Your task to perform on an android device: turn on the 24-hour format for clock Image 0: 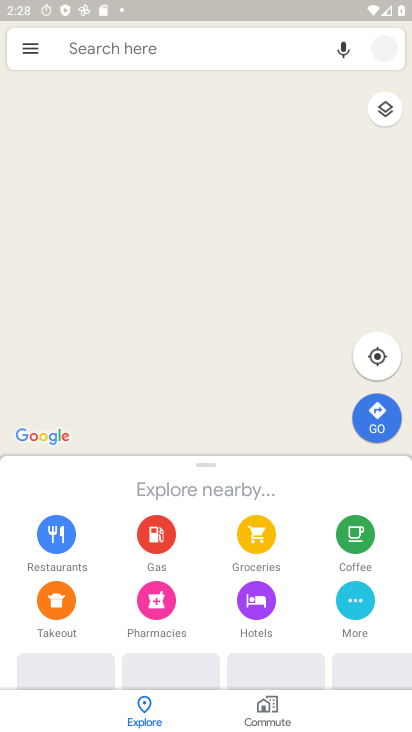
Step 0: click (333, 210)
Your task to perform on an android device: turn on the 24-hour format for clock Image 1: 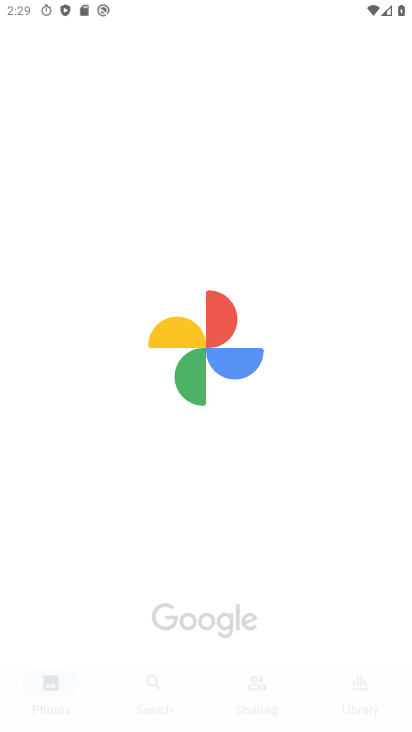
Step 1: drag from (363, 354) to (351, 214)
Your task to perform on an android device: turn on the 24-hour format for clock Image 2: 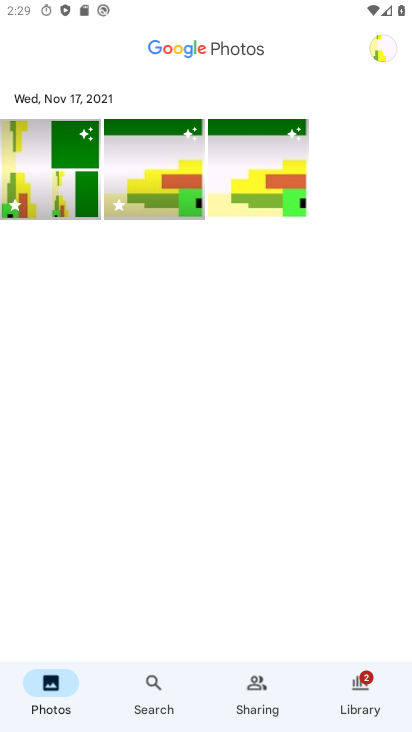
Step 2: press home button
Your task to perform on an android device: turn on the 24-hour format for clock Image 3: 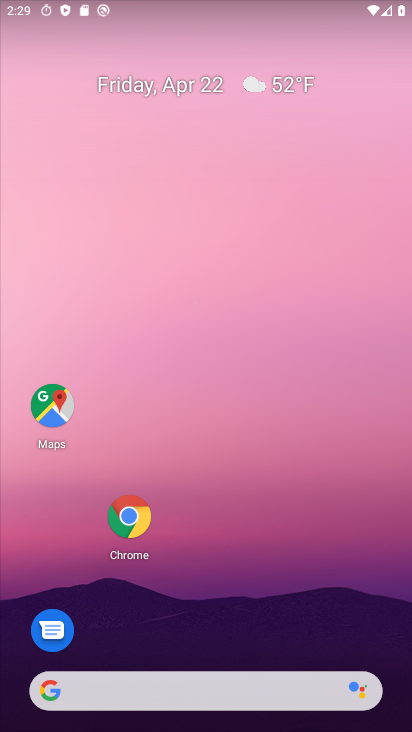
Step 3: drag from (379, 352) to (378, 155)
Your task to perform on an android device: turn on the 24-hour format for clock Image 4: 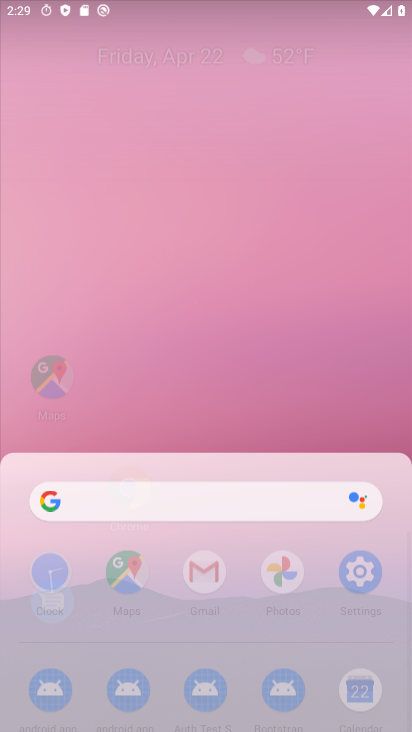
Step 4: click (352, 128)
Your task to perform on an android device: turn on the 24-hour format for clock Image 5: 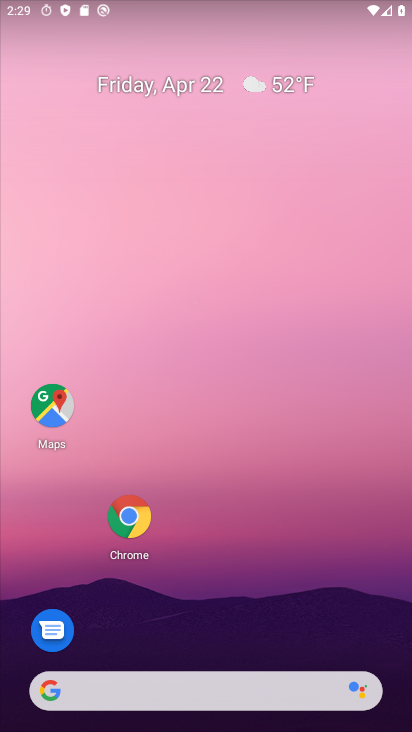
Step 5: drag from (385, 293) to (383, 168)
Your task to perform on an android device: turn on the 24-hour format for clock Image 6: 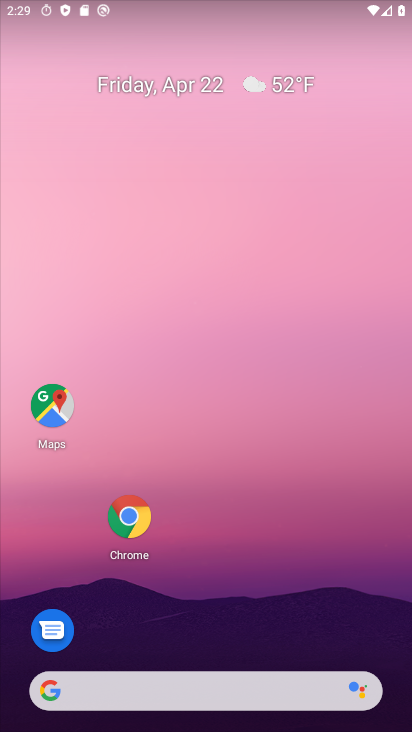
Step 6: drag from (365, 347) to (356, 129)
Your task to perform on an android device: turn on the 24-hour format for clock Image 7: 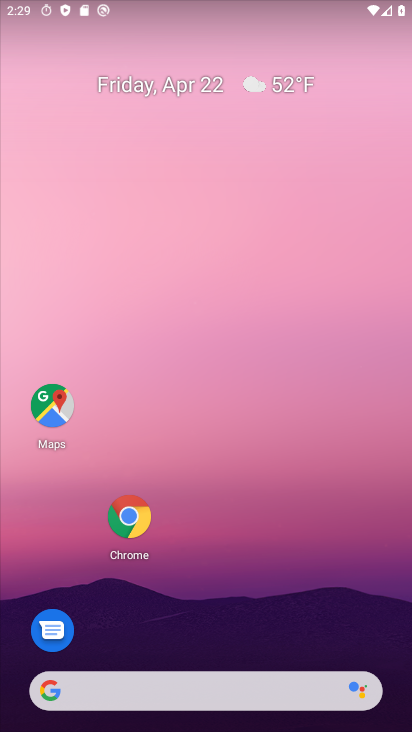
Step 7: drag from (373, 187) to (369, 142)
Your task to perform on an android device: turn on the 24-hour format for clock Image 8: 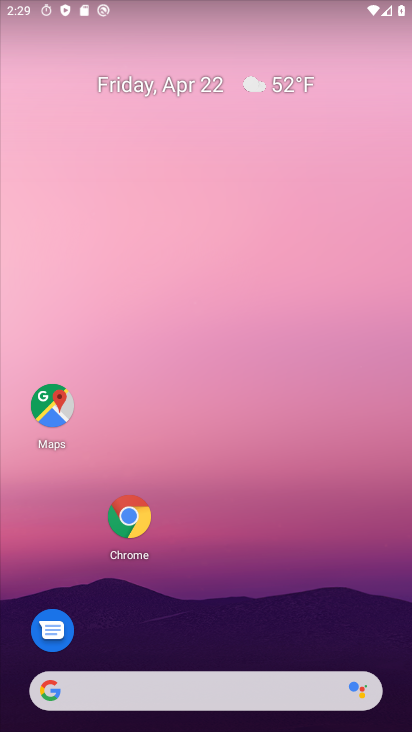
Step 8: drag from (401, 554) to (384, 217)
Your task to perform on an android device: turn on the 24-hour format for clock Image 9: 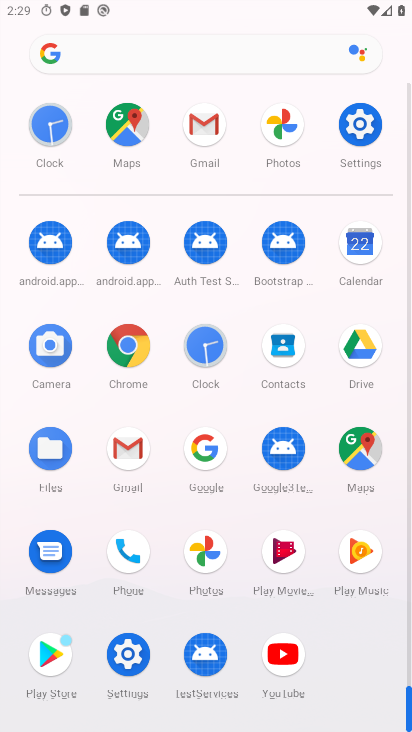
Step 9: click (54, 116)
Your task to perform on an android device: turn on the 24-hour format for clock Image 10: 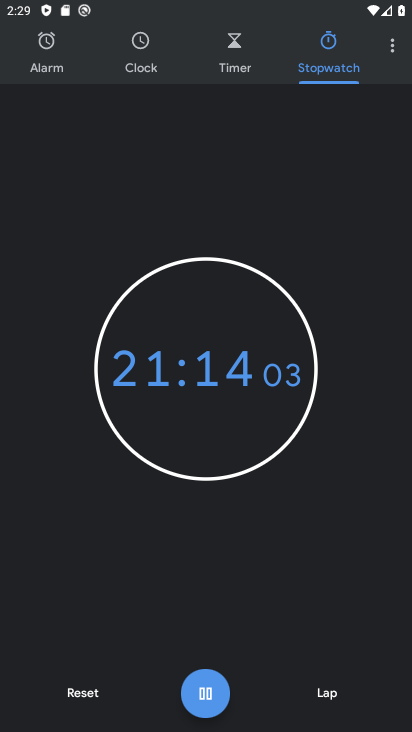
Step 10: click (393, 47)
Your task to perform on an android device: turn on the 24-hour format for clock Image 11: 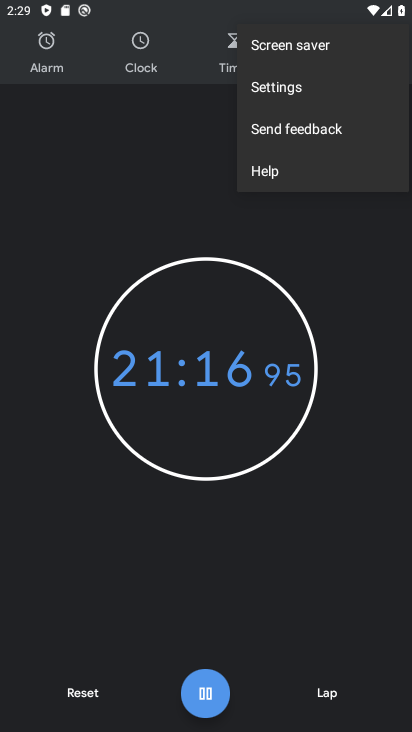
Step 11: click (265, 79)
Your task to perform on an android device: turn on the 24-hour format for clock Image 12: 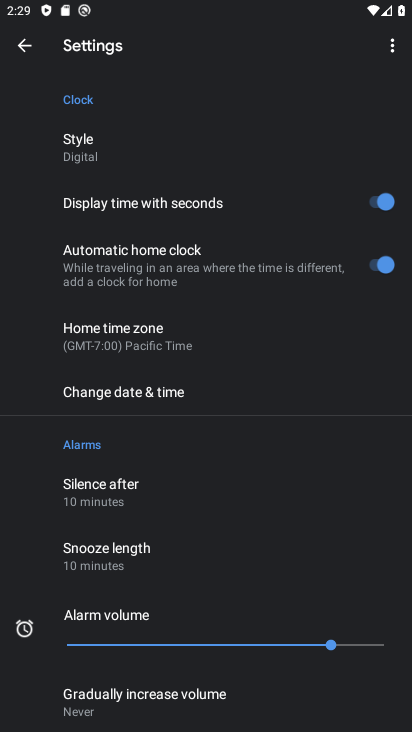
Step 12: drag from (310, 612) to (331, 242)
Your task to perform on an android device: turn on the 24-hour format for clock Image 13: 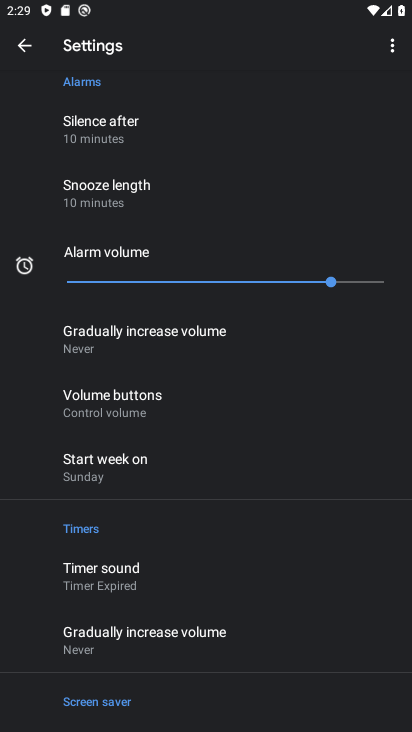
Step 13: drag from (262, 617) to (278, 218)
Your task to perform on an android device: turn on the 24-hour format for clock Image 14: 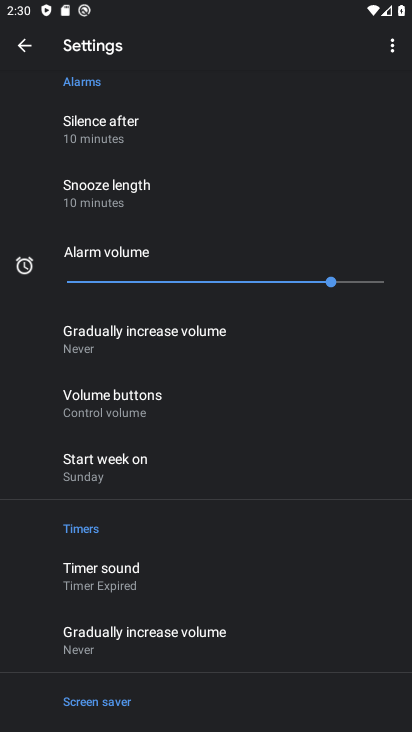
Step 14: drag from (241, 674) to (269, 265)
Your task to perform on an android device: turn on the 24-hour format for clock Image 15: 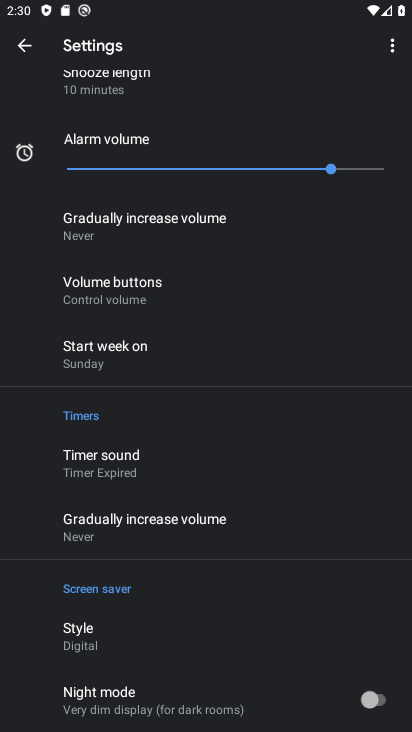
Step 15: drag from (207, 108) to (226, 388)
Your task to perform on an android device: turn on the 24-hour format for clock Image 16: 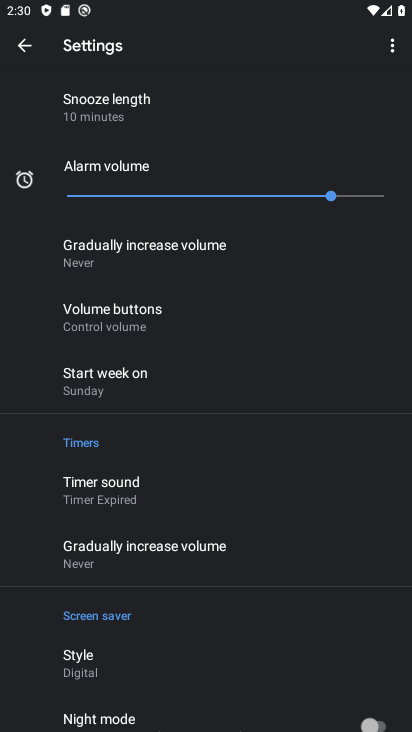
Step 16: drag from (232, 378) to (245, 437)
Your task to perform on an android device: turn on the 24-hour format for clock Image 17: 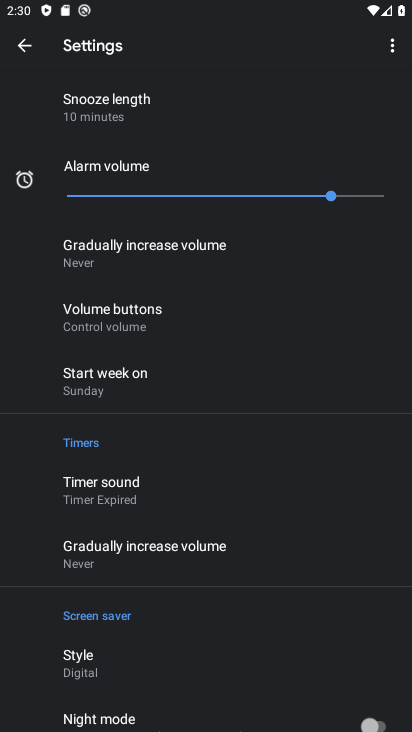
Step 17: drag from (270, 361) to (276, 411)
Your task to perform on an android device: turn on the 24-hour format for clock Image 18: 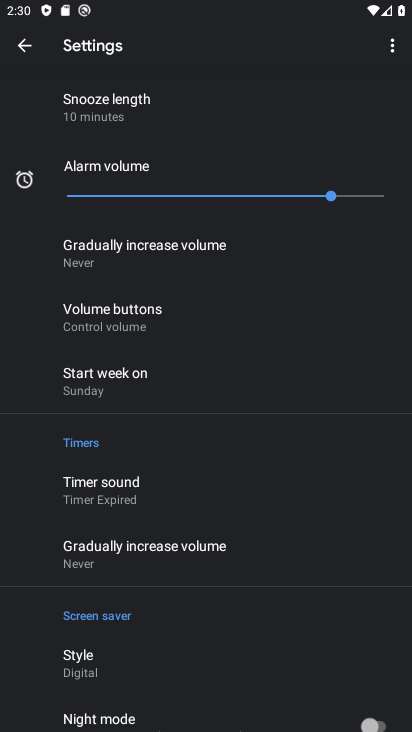
Step 18: drag from (244, 77) to (258, 379)
Your task to perform on an android device: turn on the 24-hour format for clock Image 19: 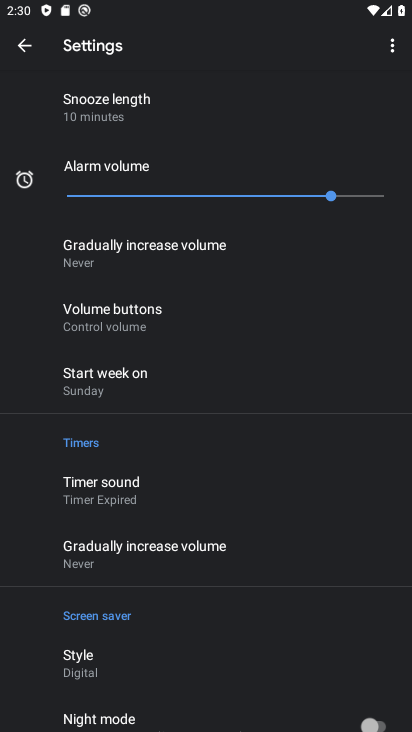
Step 19: click (17, 48)
Your task to perform on an android device: turn on the 24-hour format for clock Image 20: 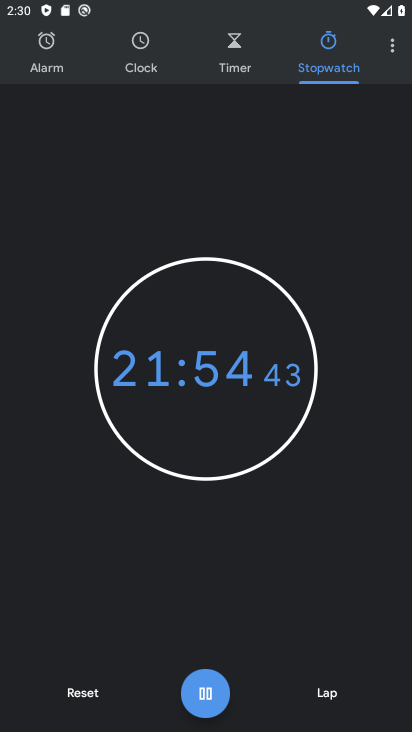
Step 20: click (389, 43)
Your task to perform on an android device: turn on the 24-hour format for clock Image 21: 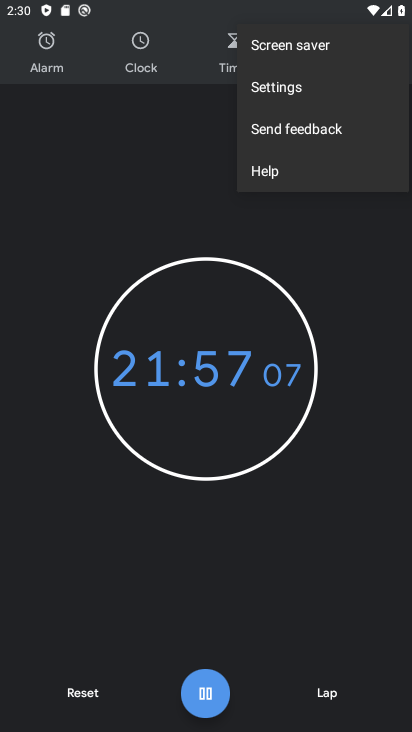
Step 21: click (270, 83)
Your task to perform on an android device: turn on the 24-hour format for clock Image 22: 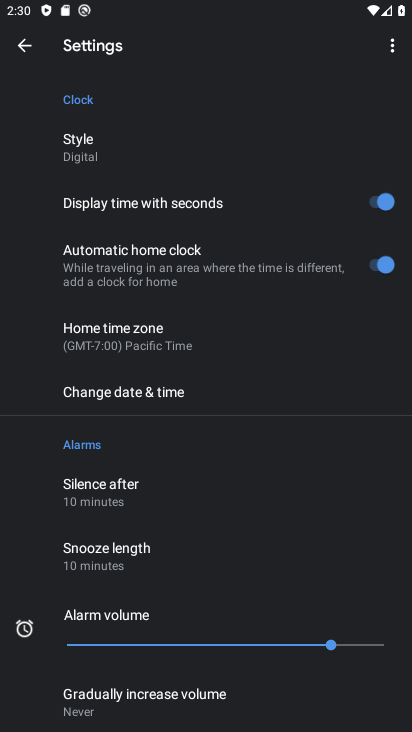
Step 22: click (117, 389)
Your task to perform on an android device: turn on the 24-hour format for clock Image 23: 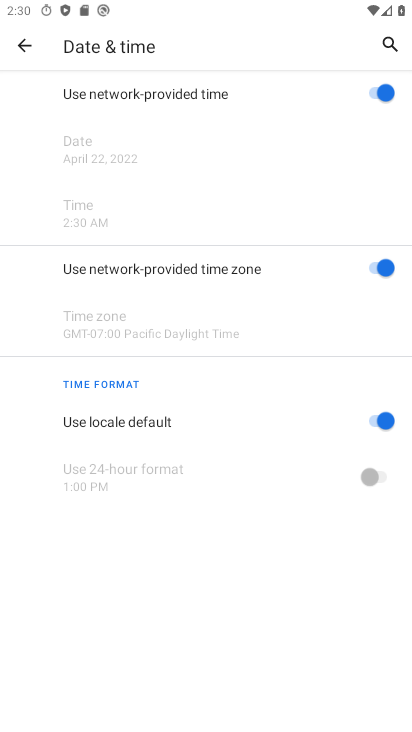
Step 23: click (371, 419)
Your task to perform on an android device: turn on the 24-hour format for clock Image 24: 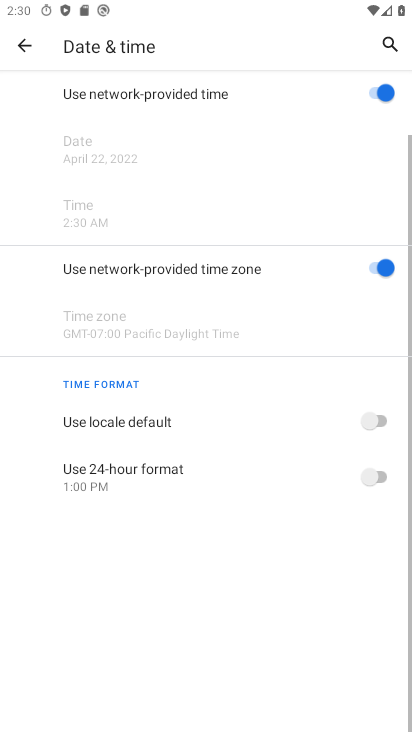
Step 24: click (382, 474)
Your task to perform on an android device: turn on the 24-hour format for clock Image 25: 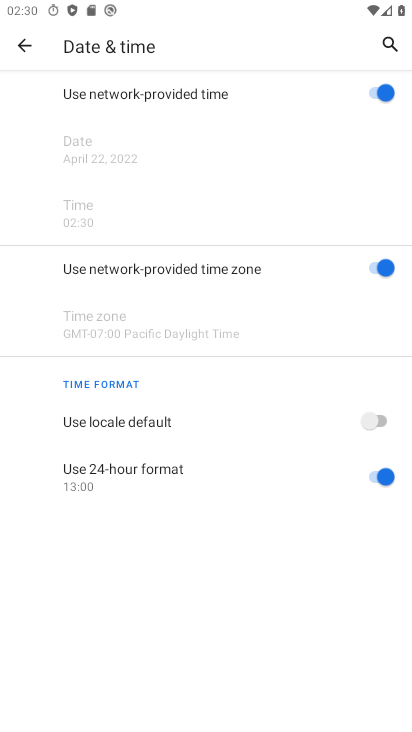
Step 25: task complete